Your task to perform on an android device: Open calendar and show me the first week of next month Image 0: 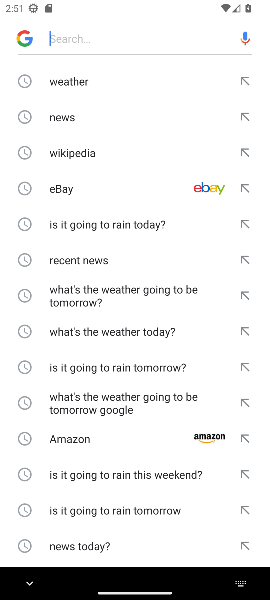
Step 0: press back button
Your task to perform on an android device: Open calendar and show me the first week of next month Image 1: 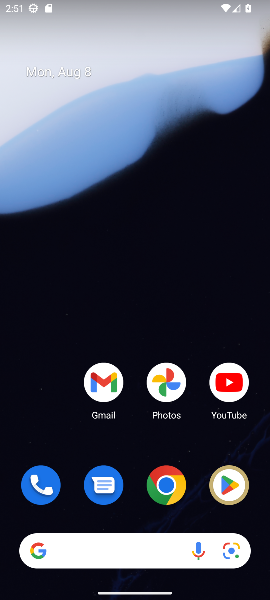
Step 1: drag from (164, 518) to (123, 132)
Your task to perform on an android device: Open calendar and show me the first week of next month Image 2: 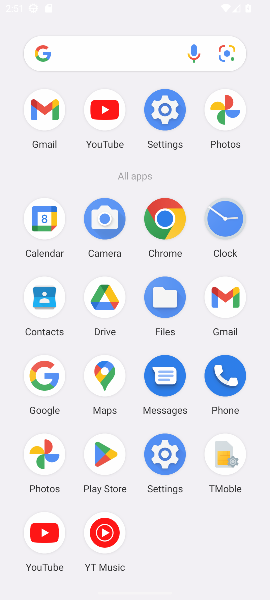
Step 2: drag from (186, 514) to (129, 67)
Your task to perform on an android device: Open calendar and show me the first week of next month Image 3: 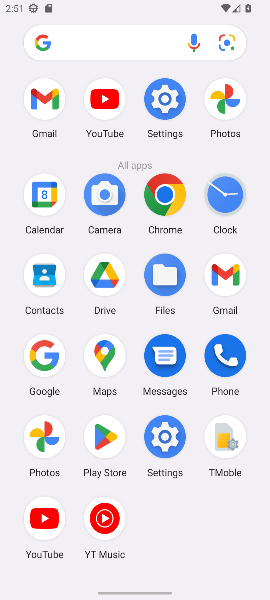
Step 3: drag from (128, 465) to (110, 208)
Your task to perform on an android device: Open calendar and show me the first week of next month Image 4: 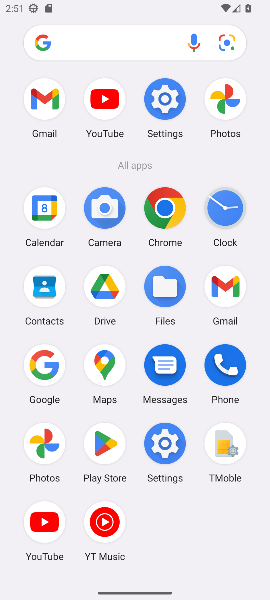
Step 4: click (50, 208)
Your task to perform on an android device: Open calendar and show me the first week of next month Image 5: 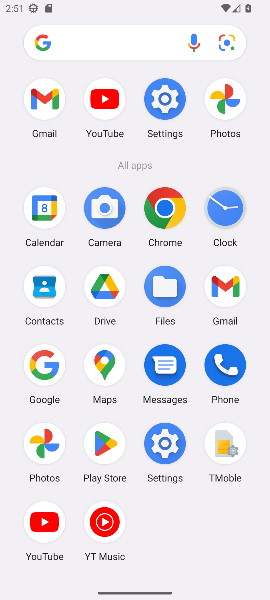
Step 5: click (50, 208)
Your task to perform on an android device: Open calendar and show me the first week of next month Image 6: 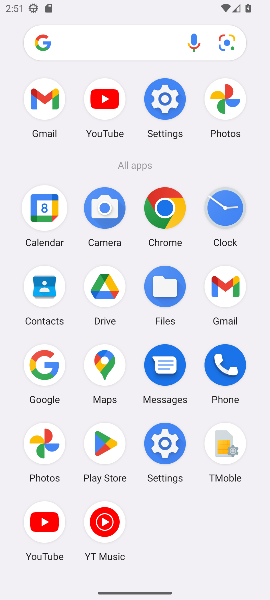
Step 6: click (50, 208)
Your task to perform on an android device: Open calendar and show me the first week of next month Image 7: 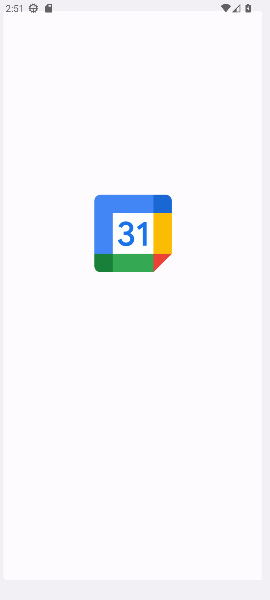
Step 7: click (50, 208)
Your task to perform on an android device: Open calendar and show me the first week of next month Image 8: 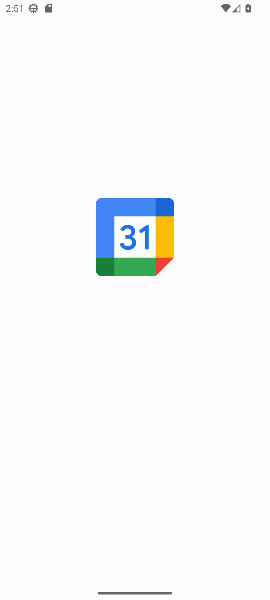
Step 8: click (50, 208)
Your task to perform on an android device: Open calendar and show me the first week of next month Image 9: 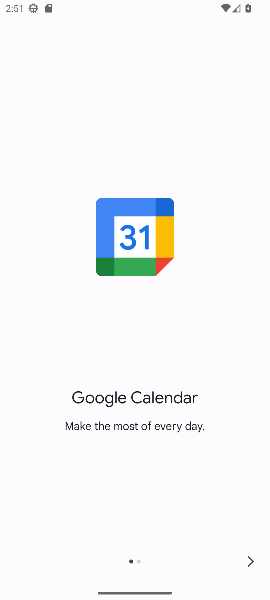
Step 9: click (250, 556)
Your task to perform on an android device: Open calendar and show me the first week of next month Image 10: 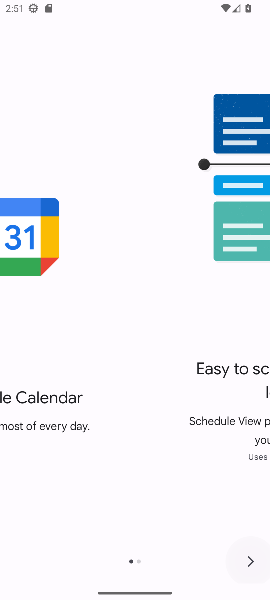
Step 10: click (250, 556)
Your task to perform on an android device: Open calendar and show me the first week of next month Image 11: 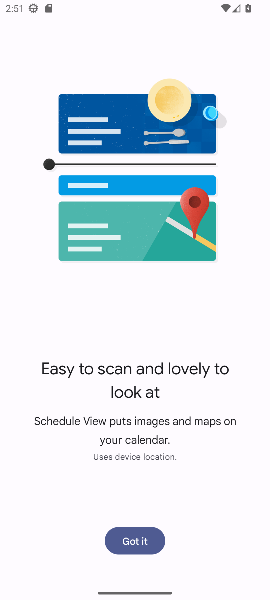
Step 11: click (247, 560)
Your task to perform on an android device: Open calendar and show me the first week of next month Image 12: 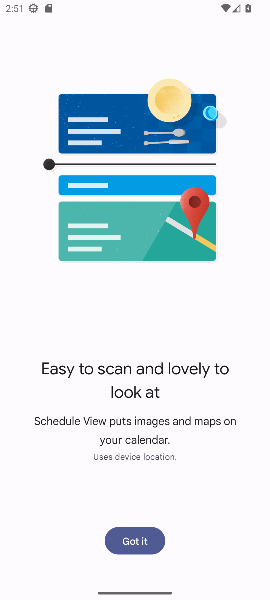
Step 12: click (139, 543)
Your task to perform on an android device: Open calendar and show me the first week of next month Image 13: 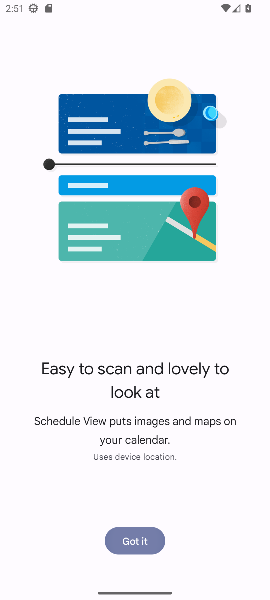
Step 13: click (142, 543)
Your task to perform on an android device: Open calendar and show me the first week of next month Image 14: 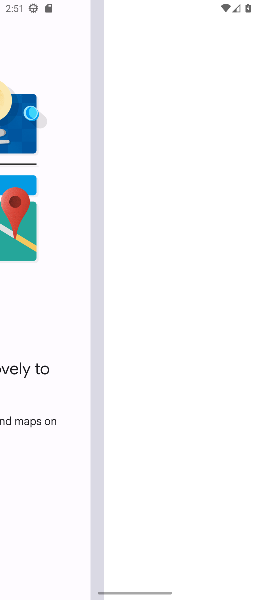
Step 14: click (143, 543)
Your task to perform on an android device: Open calendar and show me the first week of next month Image 15: 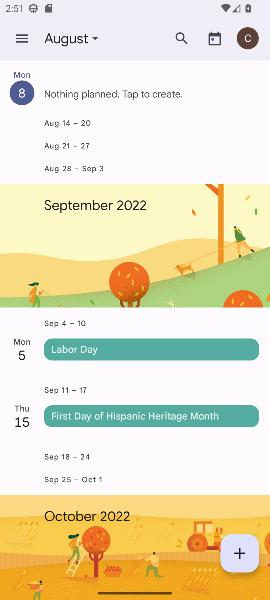
Step 15: click (96, 35)
Your task to perform on an android device: Open calendar and show me the first week of next month Image 16: 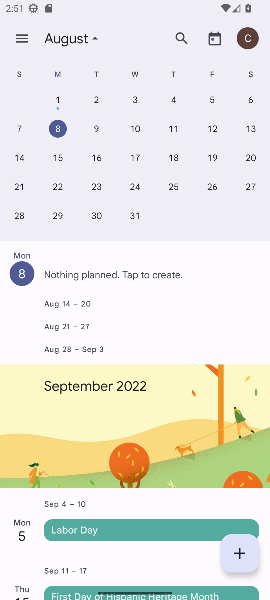
Step 16: task complete